Your task to perform on an android device: Open Google Chrome and open the bookmarks view Image 0: 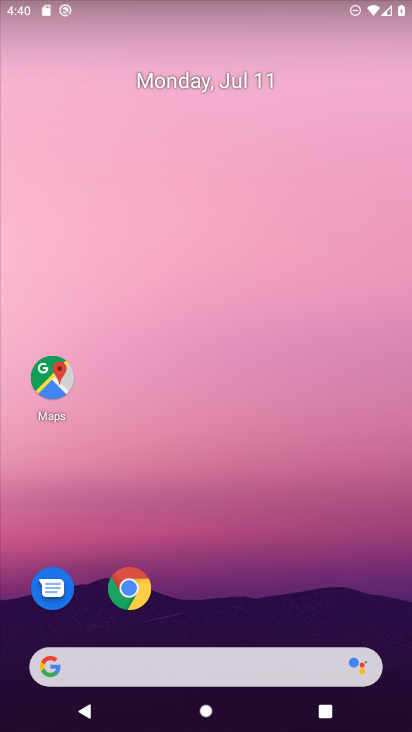
Step 0: press home button
Your task to perform on an android device: Open Google Chrome and open the bookmarks view Image 1: 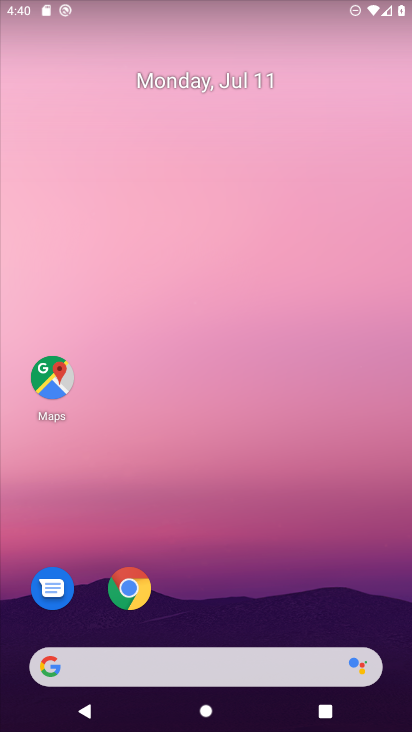
Step 1: drag from (224, 620) to (286, 1)
Your task to perform on an android device: Open Google Chrome and open the bookmarks view Image 2: 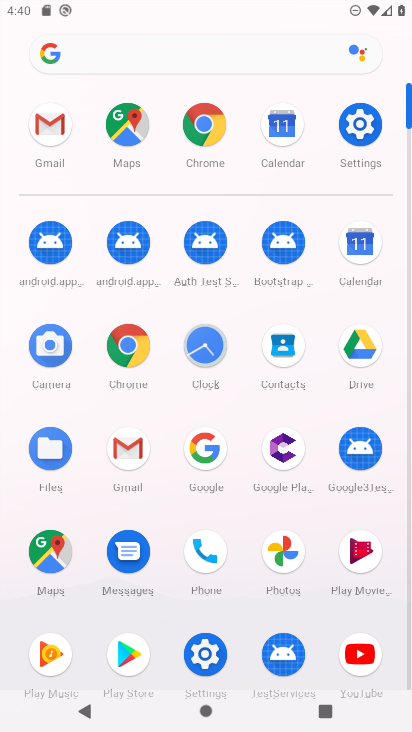
Step 2: click (199, 136)
Your task to perform on an android device: Open Google Chrome and open the bookmarks view Image 3: 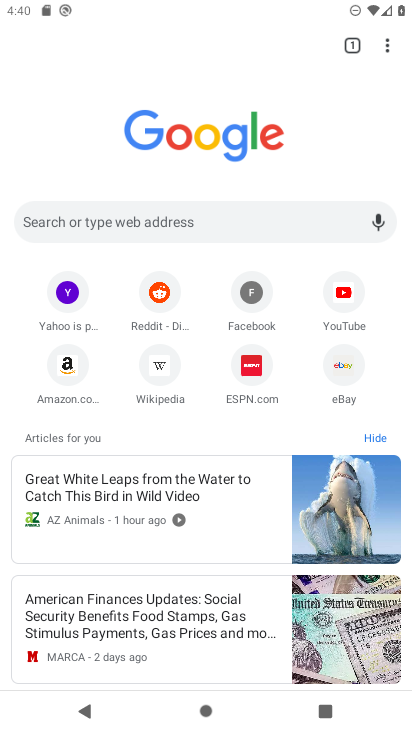
Step 3: task complete